Your task to perform on an android device: turn off wifi Image 0: 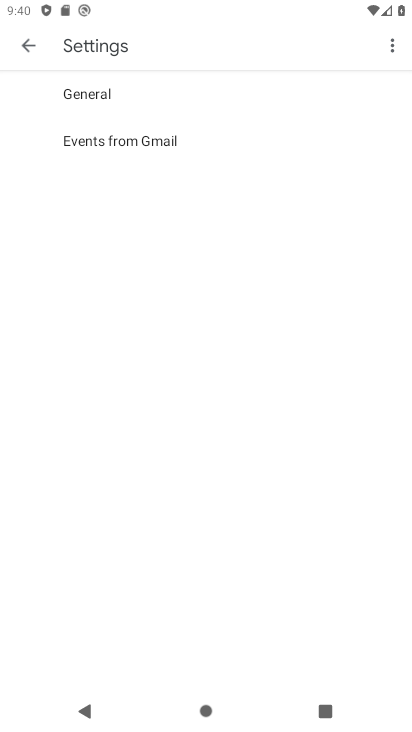
Step 0: press home button
Your task to perform on an android device: turn off wifi Image 1: 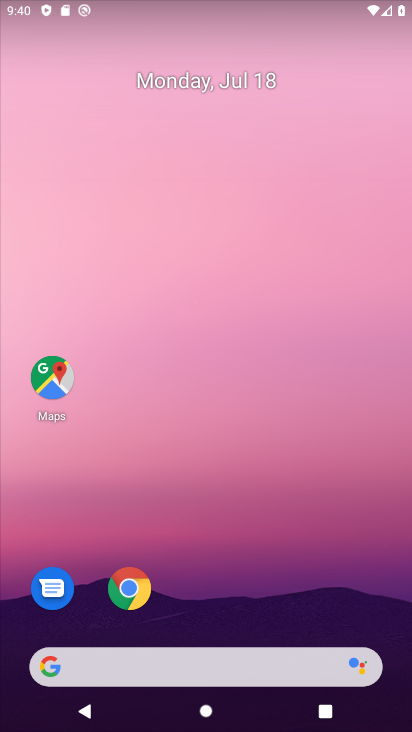
Step 1: drag from (198, 663) to (234, 100)
Your task to perform on an android device: turn off wifi Image 2: 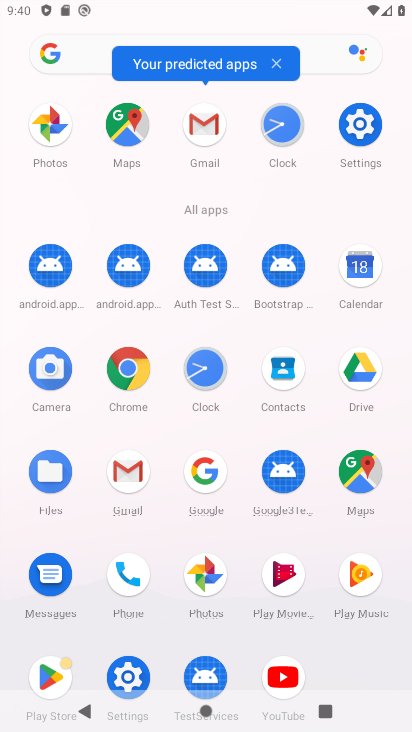
Step 2: click (360, 125)
Your task to perform on an android device: turn off wifi Image 3: 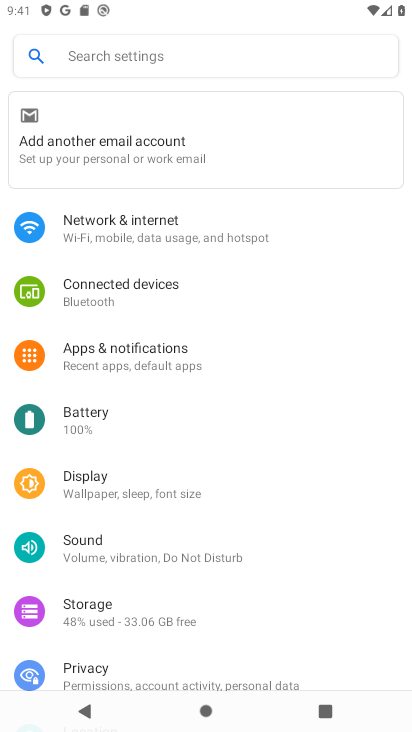
Step 3: click (148, 235)
Your task to perform on an android device: turn off wifi Image 4: 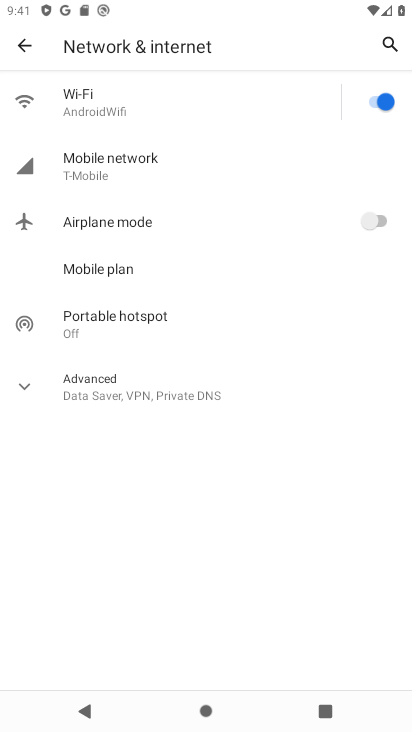
Step 4: click (368, 100)
Your task to perform on an android device: turn off wifi Image 5: 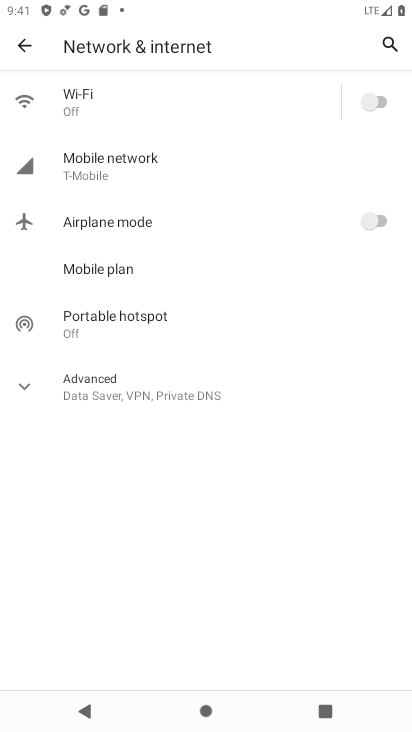
Step 5: task complete